Your task to perform on an android device: turn off location Image 0: 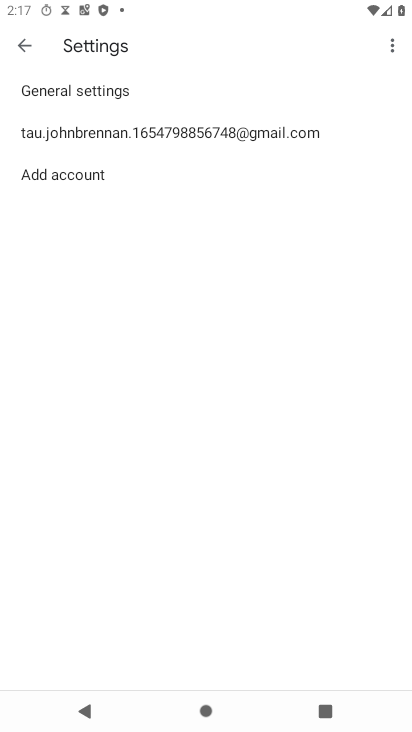
Step 0: press home button
Your task to perform on an android device: turn off location Image 1: 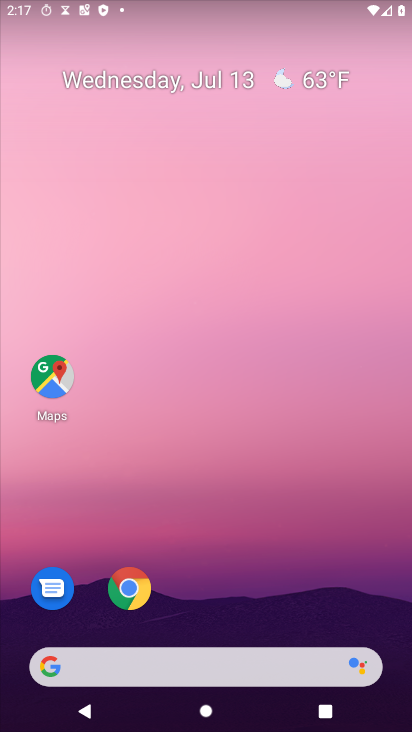
Step 1: drag from (183, 651) to (114, 16)
Your task to perform on an android device: turn off location Image 2: 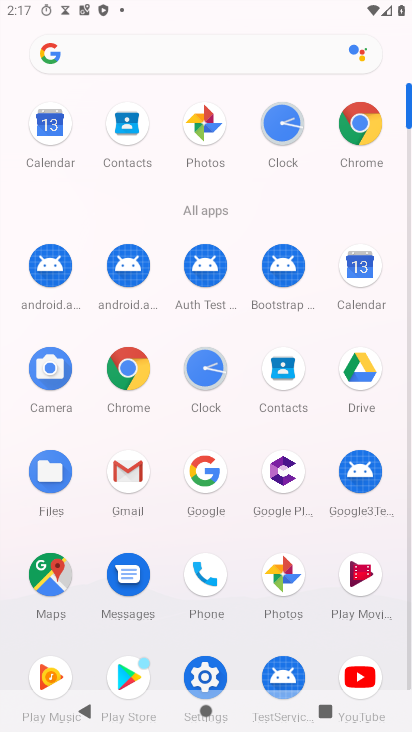
Step 2: click (200, 669)
Your task to perform on an android device: turn off location Image 3: 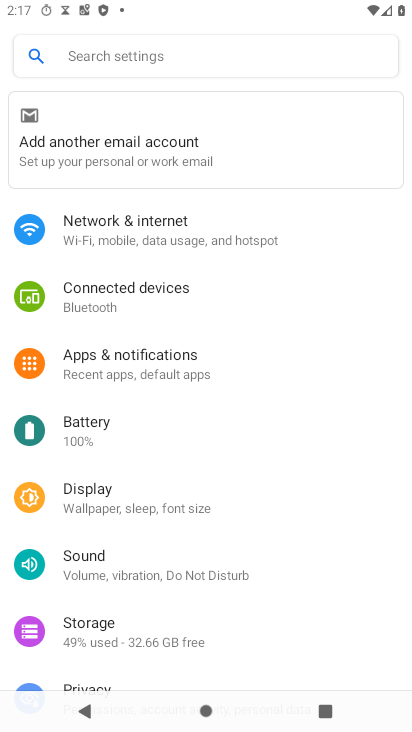
Step 3: drag from (161, 585) to (220, 143)
Your task to perform on an android device: turn off location Image 4: 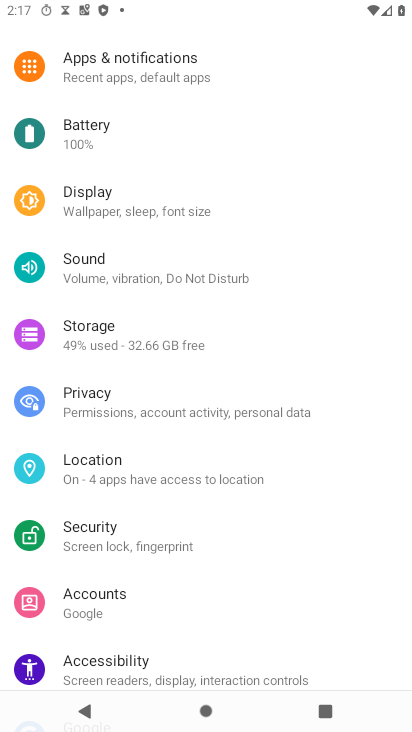
Step 4: click (161, 476)
Your task to perform on an android device: turn off location Image 5: 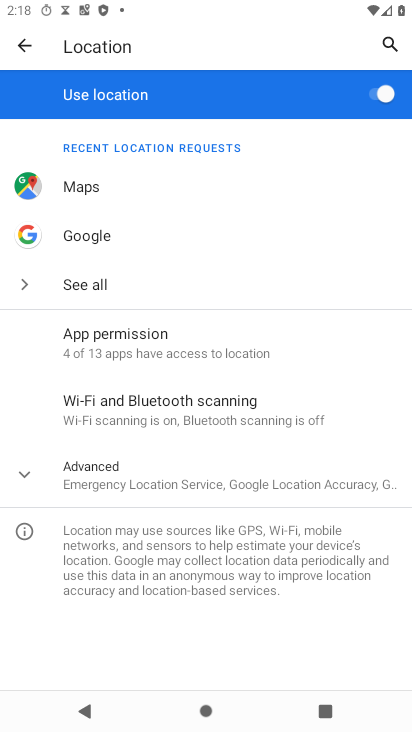
Step 5: click (379, 102)
Your task to perform on an android device: turn off location Image 6: 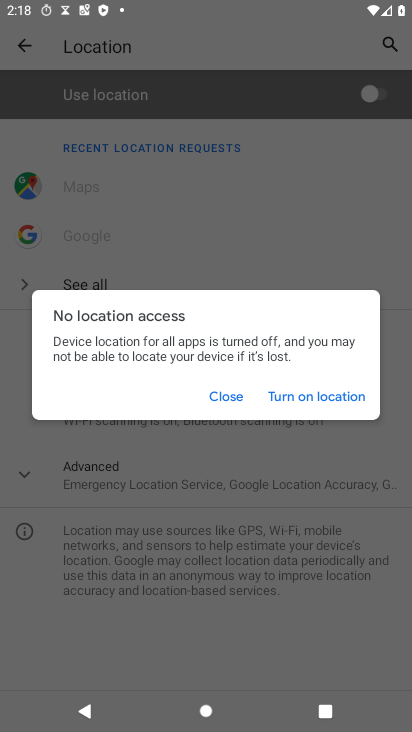
Step 6: click (224, 400)
Your task to perform on an android device: turn off location Image 7: 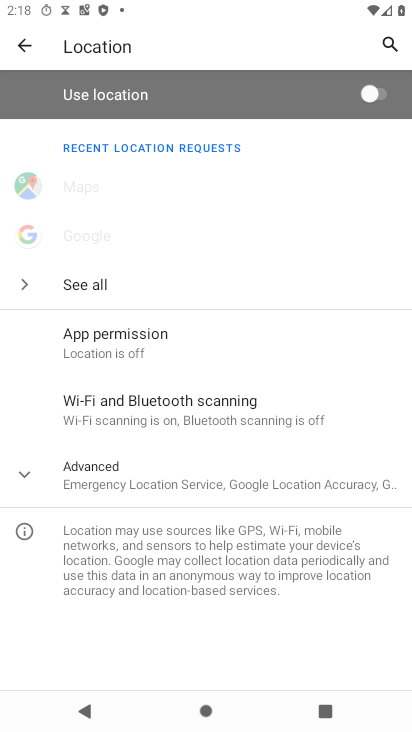
Step 7: task complete